Your task to perform on an android device: Open Google Chrome Image 0: 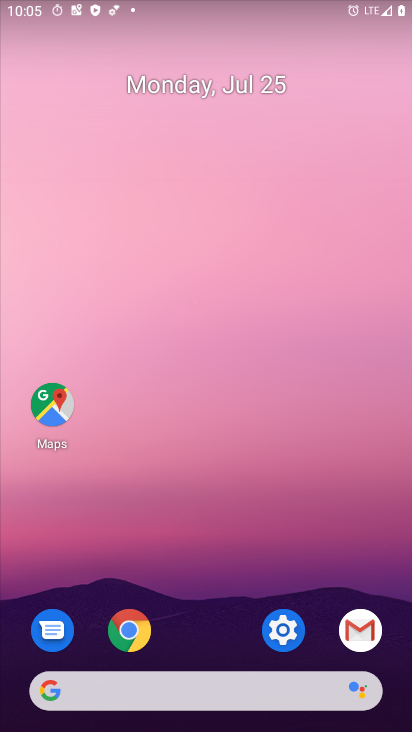
Step 0: click (141, 629)
Your task to perform on an android device: Open Google Chrome Image 1: 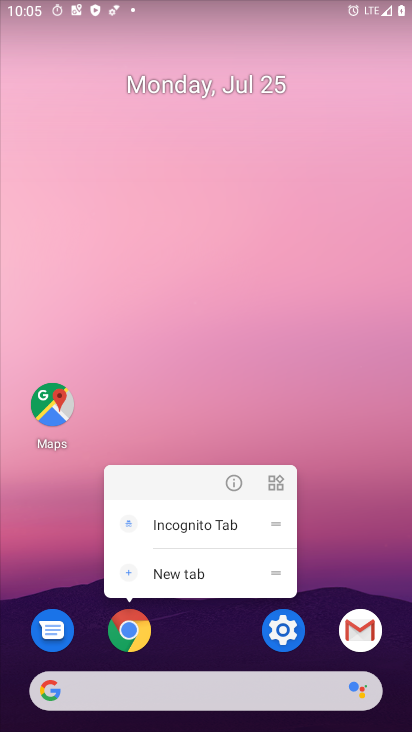
Step 1: click (141, 629)
Your task to perform on an android device: Open Google Chrome Image 2: 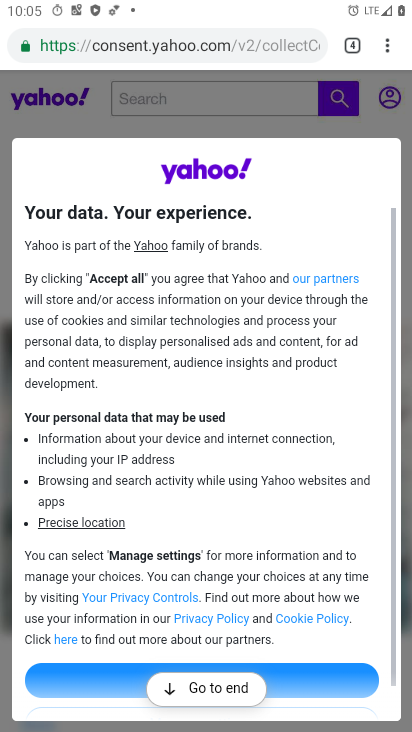
Step 2: click (348, 46)
Your task to perform on an android device: Open Google Chrome Image 3: 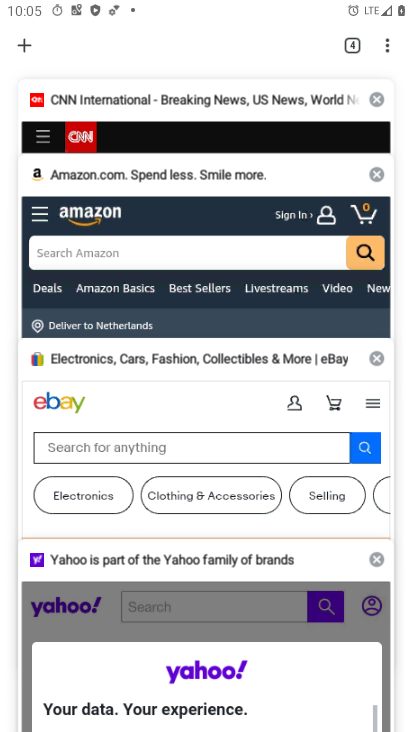
Step 3: click (23, 42)
Your task to perform on an android device: Open Google Chrome Image 4: 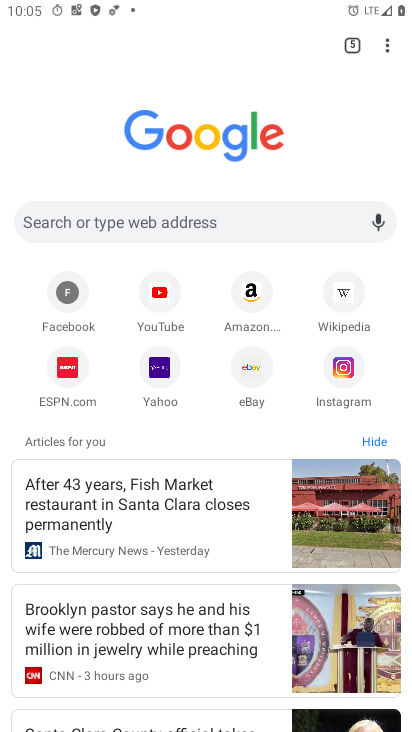
Step 4: task complete